Your task to perform on an android device: allow notifications from all sites in the chrome app Image 0: 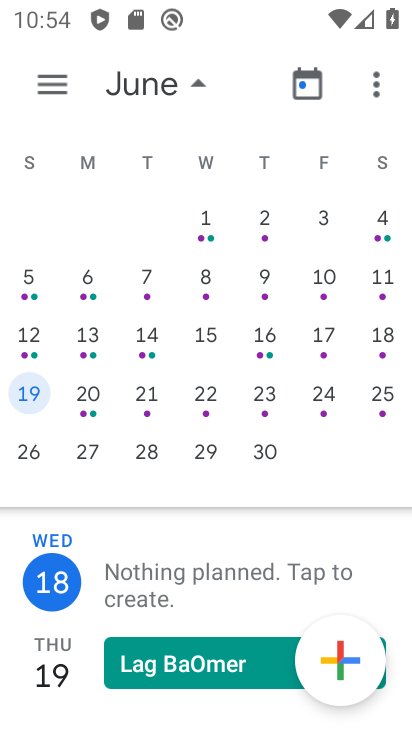
Step 0: press home button
Your task to perform on an android device: allow notifications from all sites in the chrome app Image 1: 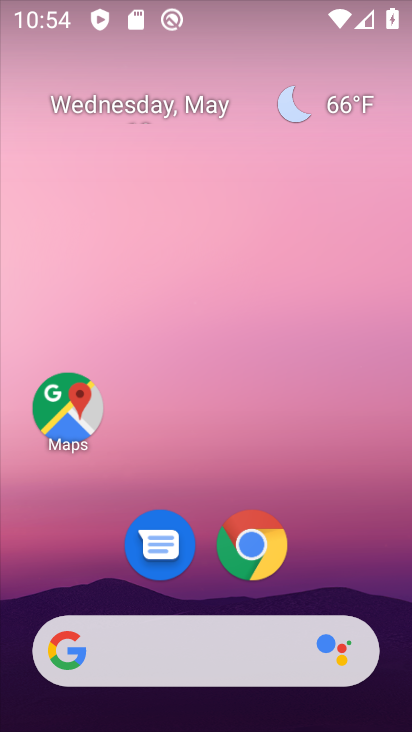
Step 1: click (199, 709)
Your task to perform on an android device: allow notifications from all sites in the chrome app Image 2: 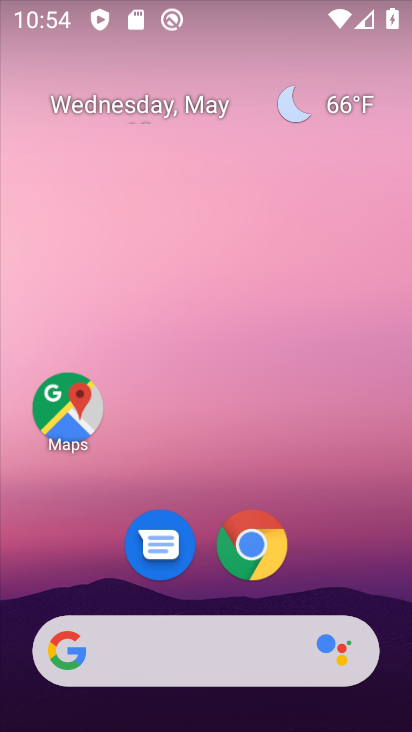
Step 2: click (265, 531)
Your task to perform on an android device: allow notifications from all sites in the chrome app Image 3: 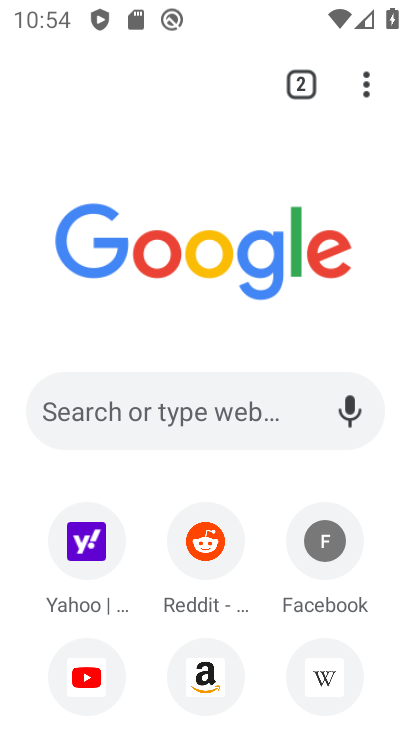
Step 3: click (366, 81)
Your task to perform on an android device: allow notifications from all sites in the chrome app Image 4: 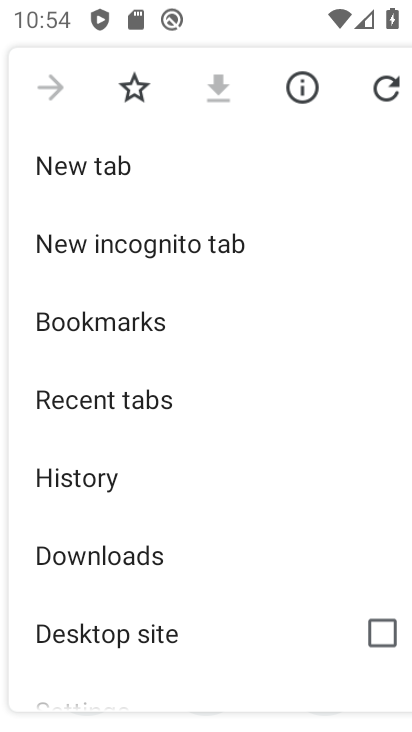
Step 4: drag from (265, 648) to (346, 153)
Your task to perform on an android device: allow notifications from all sites in the chrome app Image 5: 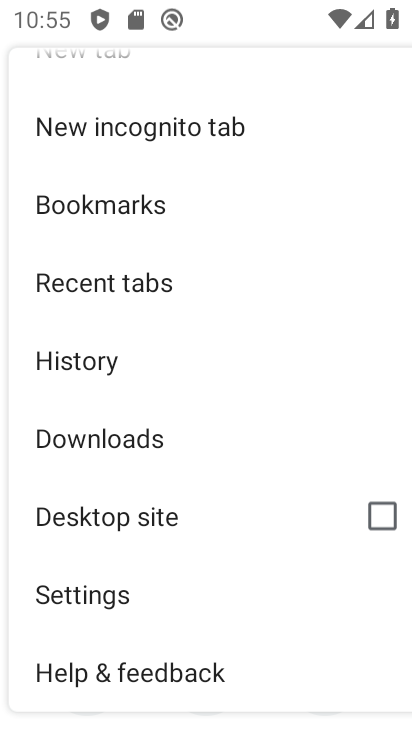
Step 5: click (130, 592)
Your task to perform on an android device: allow notifications from all sites in the chrome app Image 6: 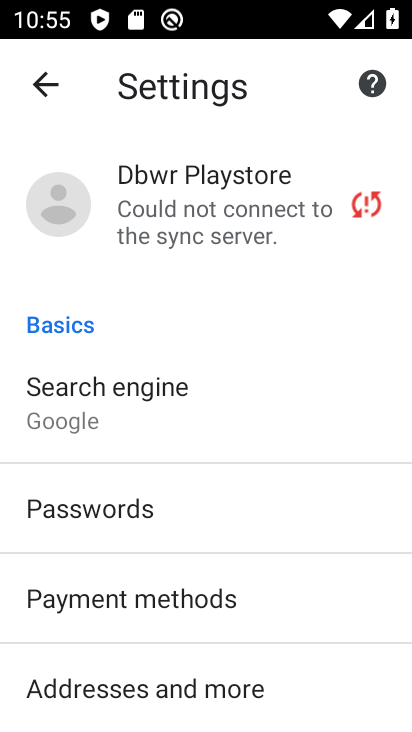
Step 6: drag from (297, 645) to (304, 22)
Your task to perform on an android device: allow notifications from all sites in the chrome app Image 7: 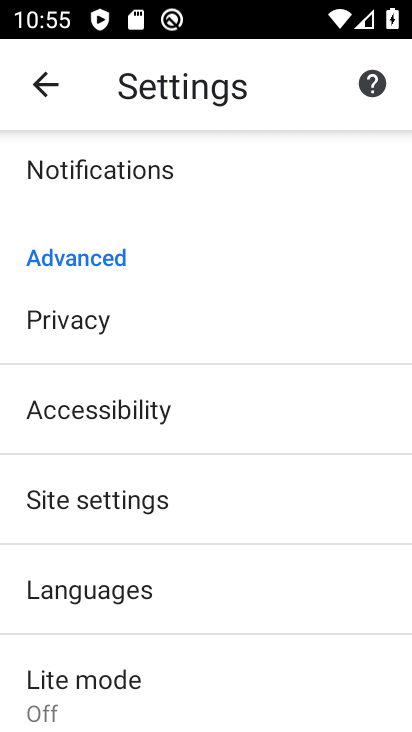
Step 7: click (175, 164)
Your task to perform on an android device: allow notifications from all sites in the chrome app Image 8: 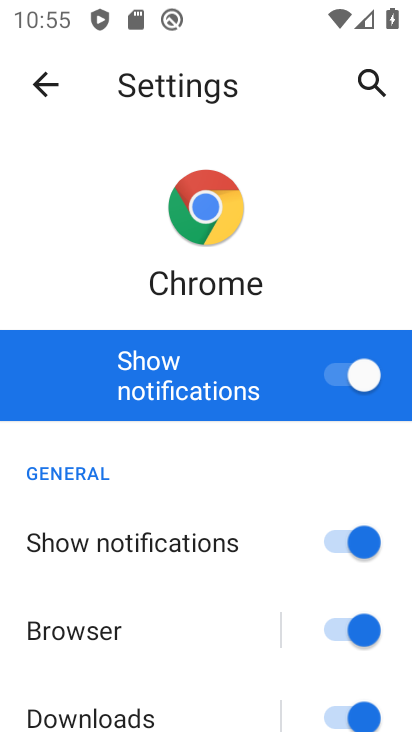
Step 8: task complete